Your task to perform on an android device: turn on sleep mode Image 0: 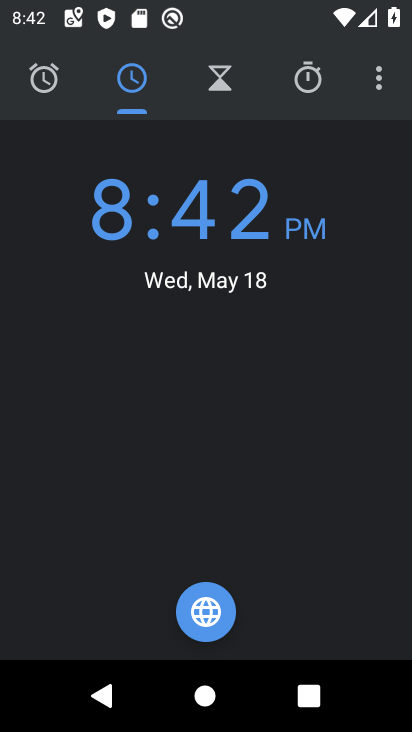
Step 0: press home button
Your task to perform on an android device: turn on sleep mode Image 1: 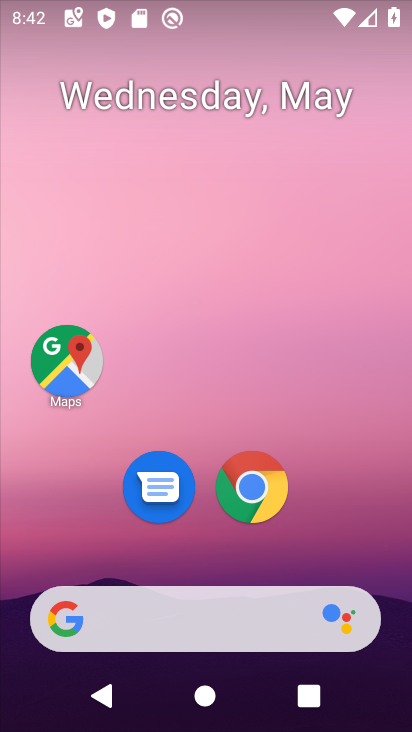
Step 1: drag from (315, 541) to (230, 28)
Your task to perform on an android device: turn on sleep mode Image 2: 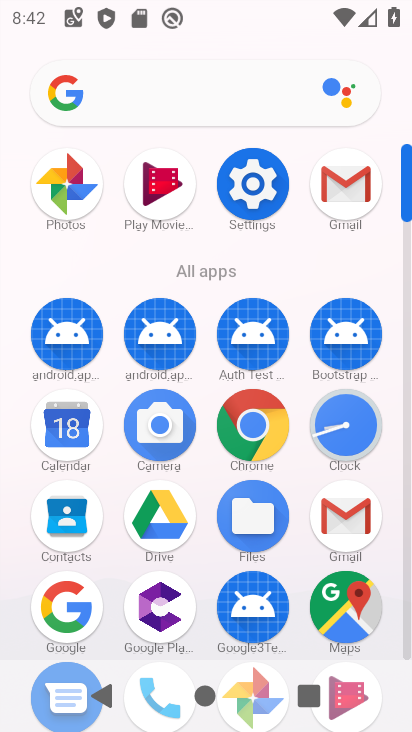
Step 2: click (263, 189)
Your task to perform on an android device: turn on sleep mode Image 3: 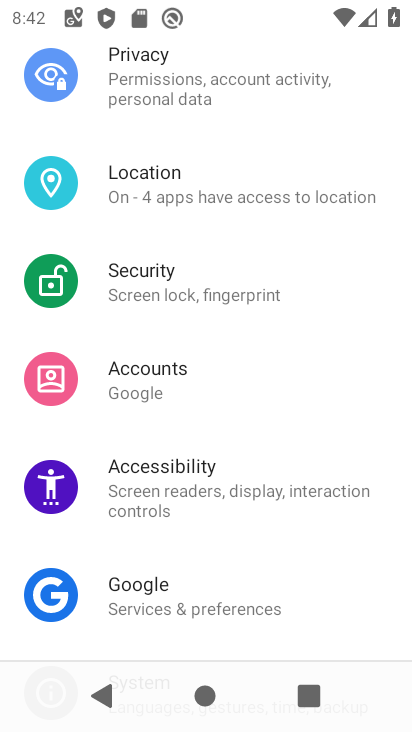
Step 3: click (145, 50)
Your task to perform on an android device: turn on sleep mode Image 4: 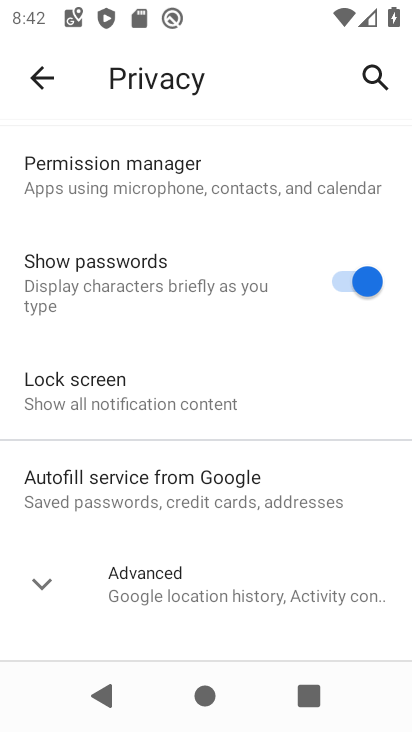
Step 4: task complete